Your task to perform on an android device: open chrome and create a bookmark for the current page Image 0: 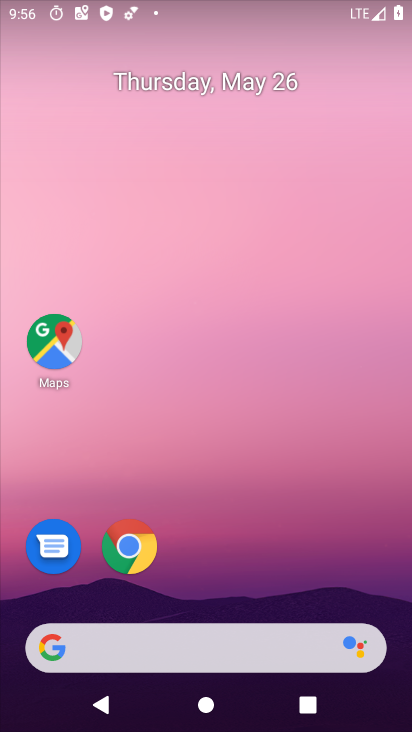
Step 0: drag from (326, 567) to (279, 107)
Your task to perform on an android device: open chrome and create a bookmark for the current page Image 1: 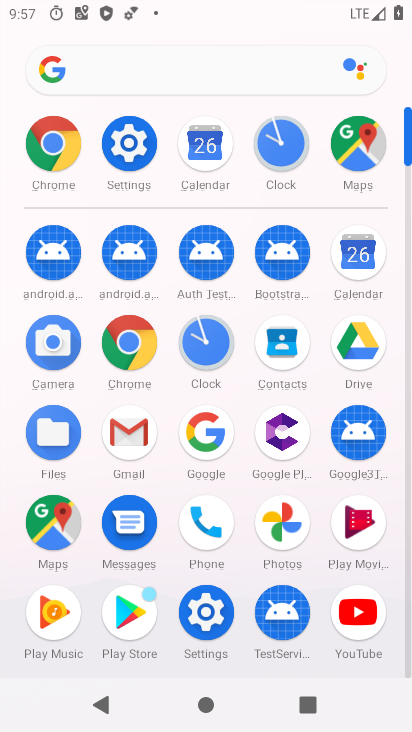
Step 1: click (133, 355)
Your task to perform on an android device: open chrome and create a bookmark for the current page Image 2: 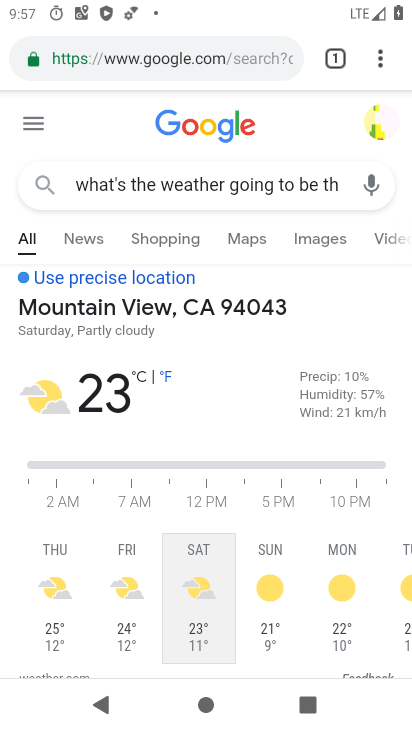
Step 2: task complete